Your task to perform on an android device: see sites visited before in the chrome app Image 0: 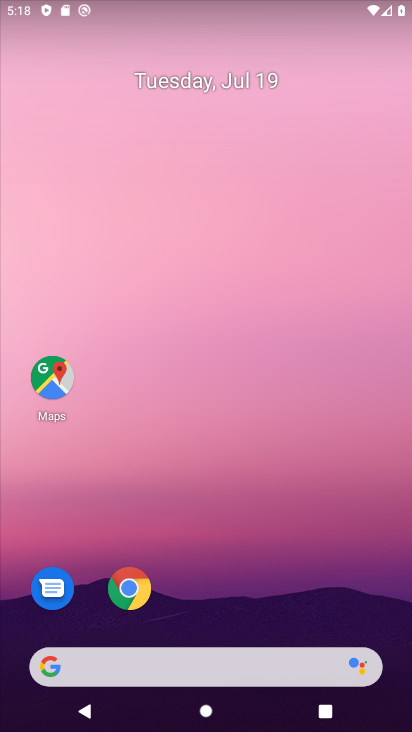
Step 0: click (142, 598)
Your task to perform on an android device: see sites visited before in the chrome app Image 1: 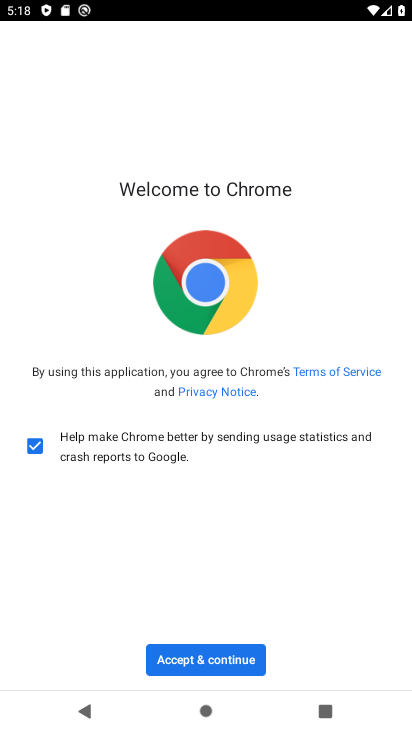
Step 1: click (208, 667)
Your task to perform on an android device: see sites visited before in the chrome app Image 2: 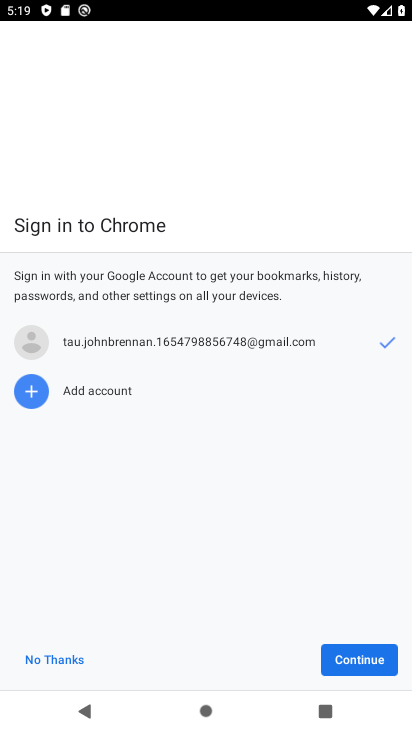
Step 2: click (373, 657)
Your task to perform on an android device: see sites visited before in the chrome app Image 3: 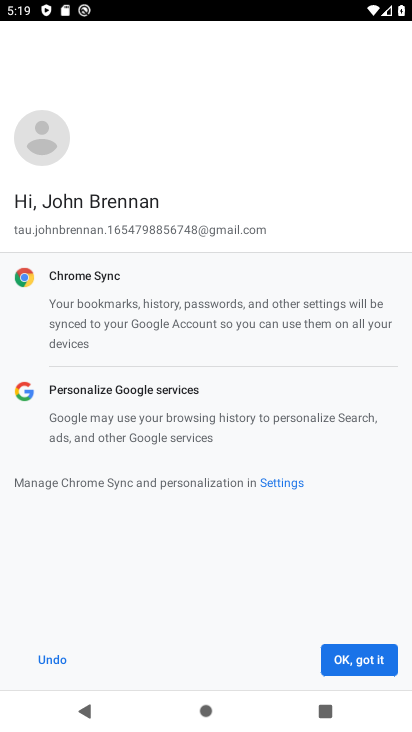
Step 3: click (373, 657)
Your task to perform on an android device: see sites visited before in the chrome app Image 4: 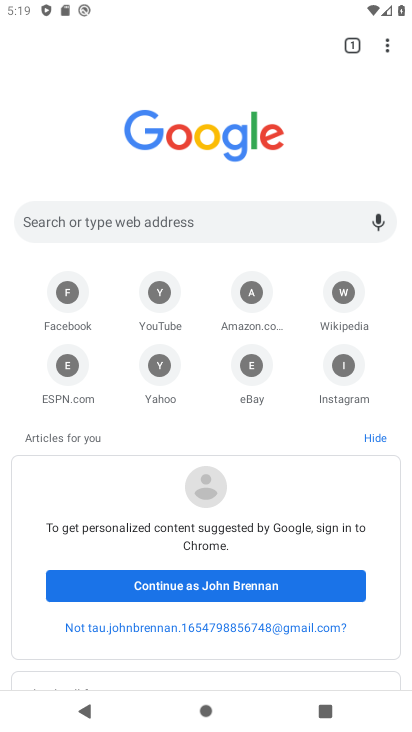
Step 4: click (400, 49)
Your task to perform on an android device: see sites visited before in the chrome app Image 5: 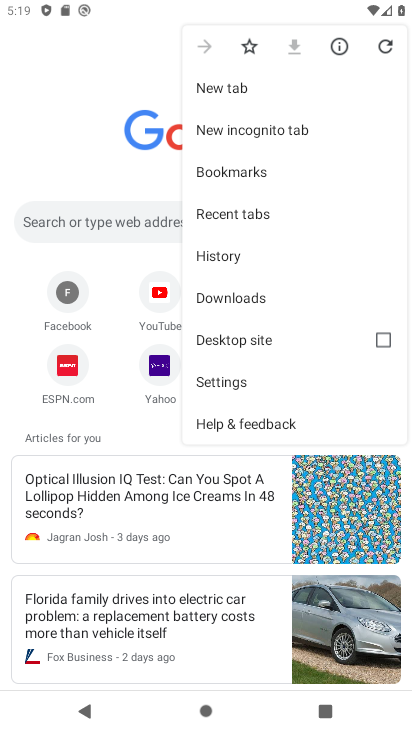
Step 5: click (273, 226)
Your task to perform on an android device: see sites visited before in the chrome app Image 6: 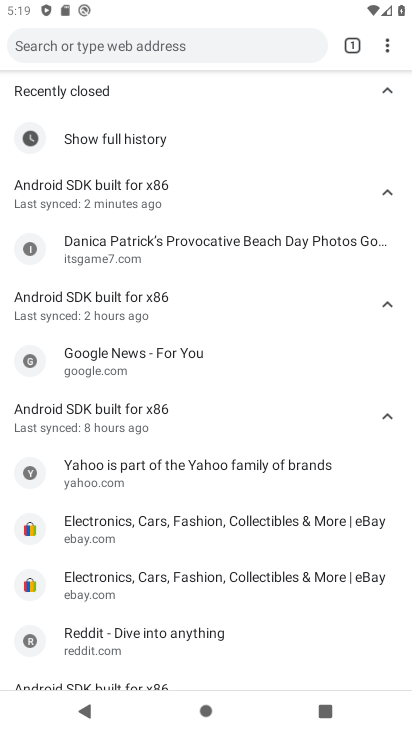
Step 6: task complete